Your task to perform on an android device: see sites visited before in the chrome app Image 0: 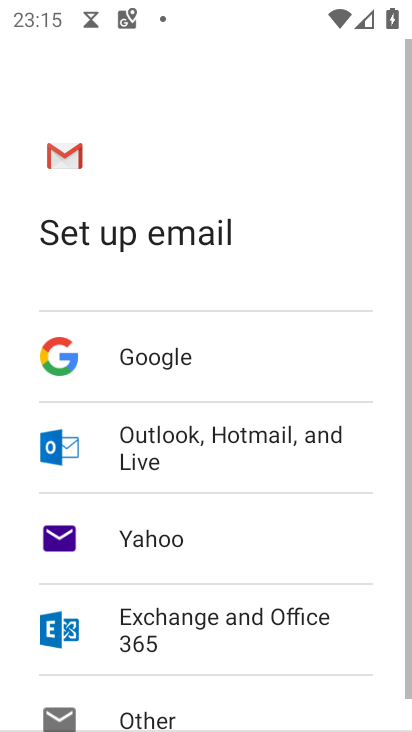
Step 0: press back button
Your task to perform on an android device: see sites visited before in the chrome app Image 1: 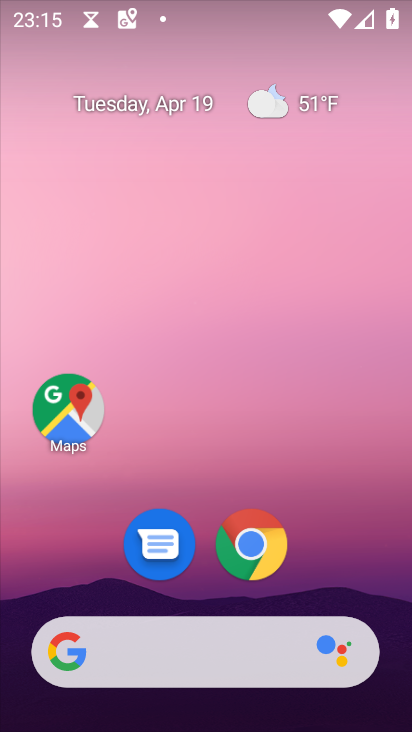
Step 1: click (261, 546)
Your task to perform on an android device: see sites visited before in the chrome app Image 2: 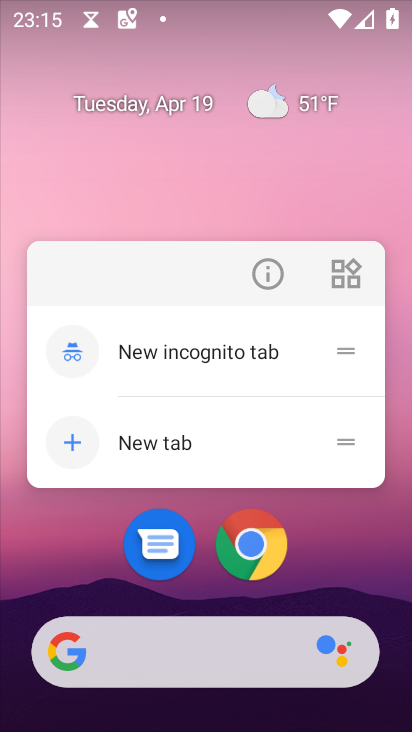
Step 2: click (261, 546)
Your task to perform on an android device: see sites visited before in the chrome app Image 3: 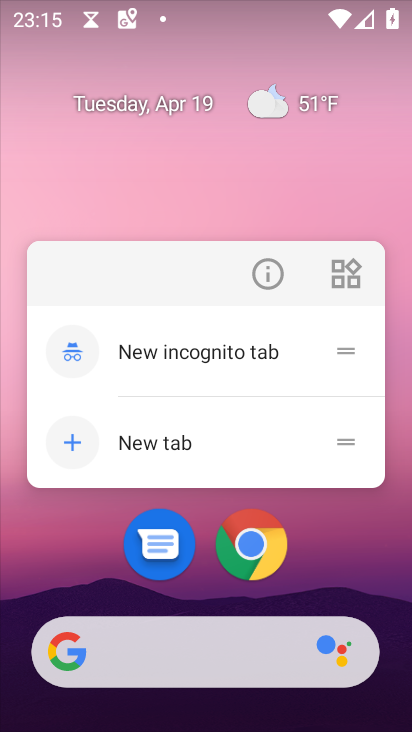
Step 3: click (261, 546)
Your task to perform on an android device: see sites visited before in the chrome app Image 4: 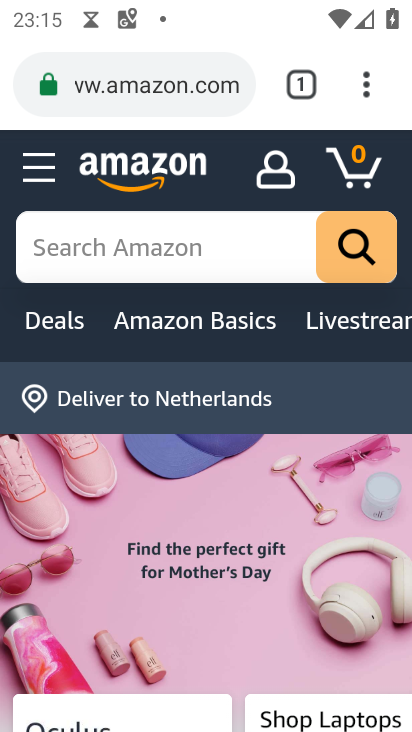
Step 4: click (364, 68)
Your task to perform on an android device: see sites visited before in the chrome app Image 5: 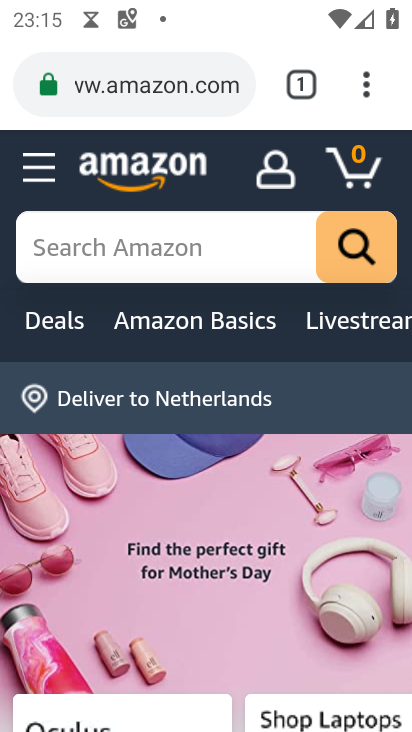
Step 5: click (364, 68)
Your task to perform on an android device: see sites visited before in the chrome app Image 6: 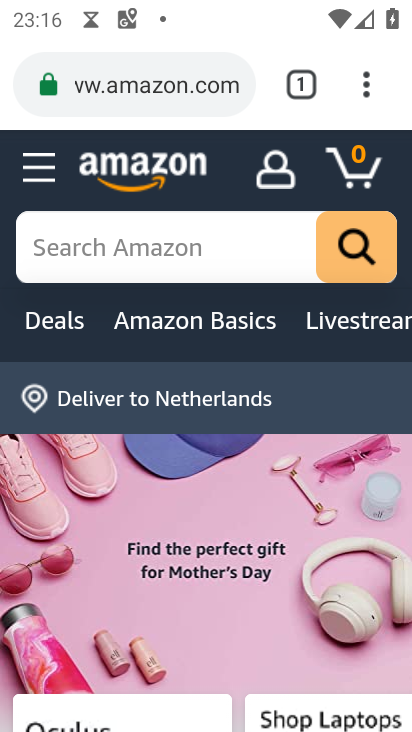
Step 6: click (367, 93)
Your task to perform on an android device: see sites visited before in the chrome app Image 7: 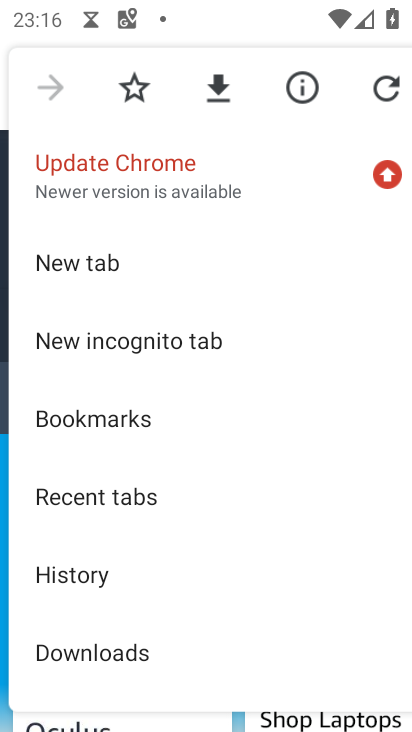
Step 7: drag from (176, 594) to (179, 532)
Your task to perform on an android device: see sites visited before in the chrome app Image 8: 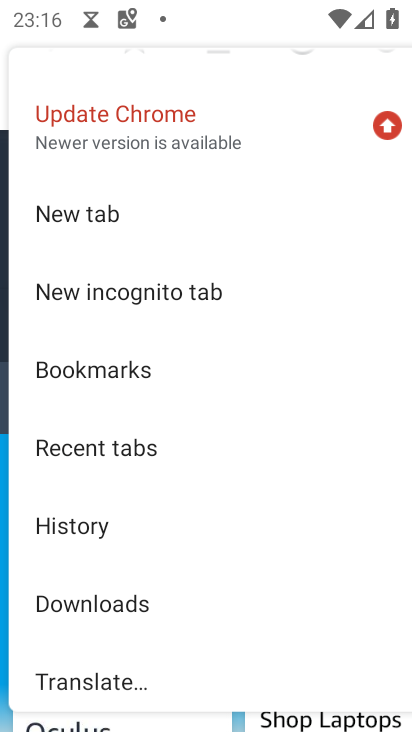
Step 8: click (176, 517)
Your task to perform on an android device: see sites visited before in the chrome app Image 9: 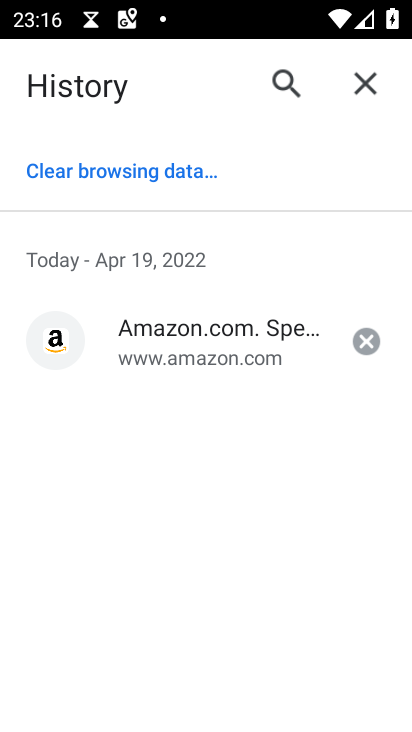
Step 9: task complete